Your task to perform on an android device: Show me popular videos on Youtube Image 0: 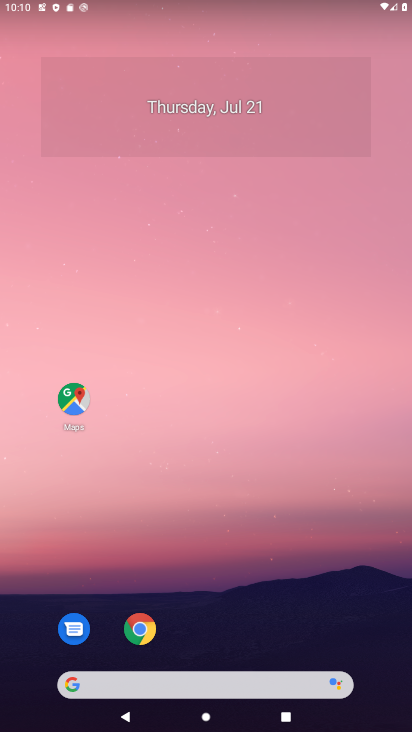
Step 0: press home button
Your task to perform on an android device: Show me popular videos on Youtube Image 1: 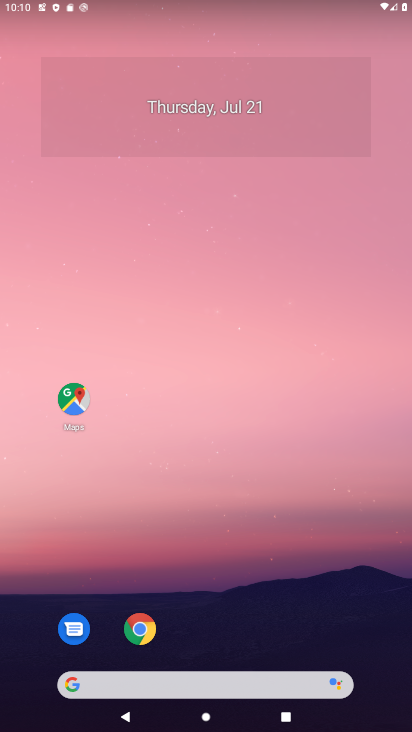
Step 1: drag from (277, 537) to (183, 88)
Your task to perform on an android device: Show me popular videos on Youtube Image 2: 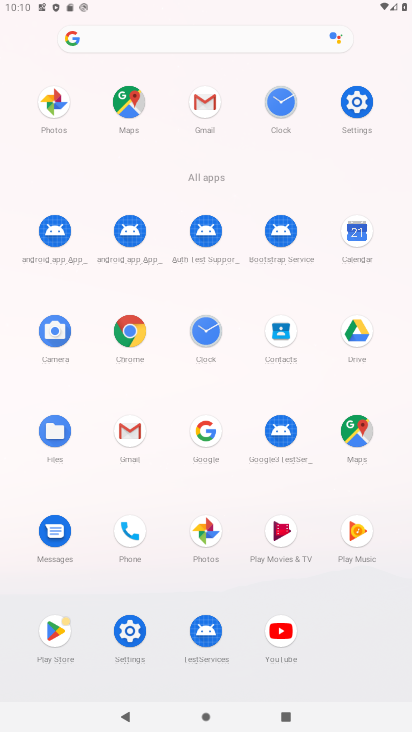
Step 2: click (281, 630)
Your task to perform on an android device: Show me popular videos on Youtube Image 3: 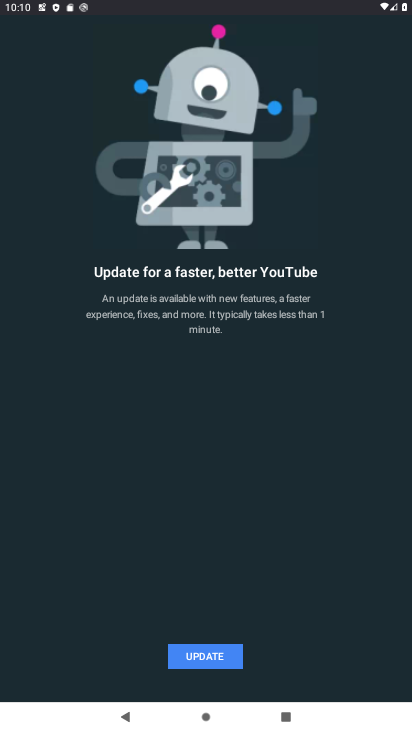
Step 3: click (224, 651)
Your task to perform on an android device: Show me popular videos on Youtube Image 4: 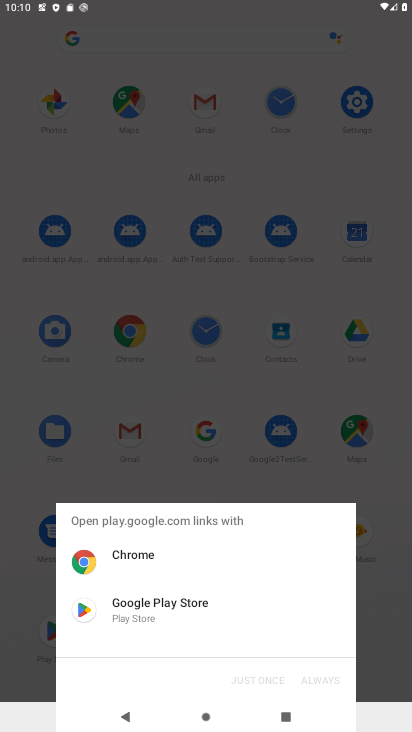
Step 4: click (171, 610)
Your task to perform on an android device: Show me popular videos on Youtube Image 5: 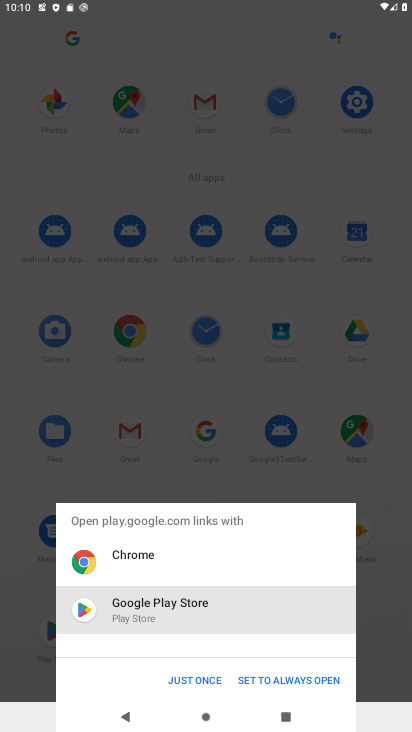
Step 5: click (171, 610)
Your task to perform on an android device: Show me popular videos on Youtube Image 6: 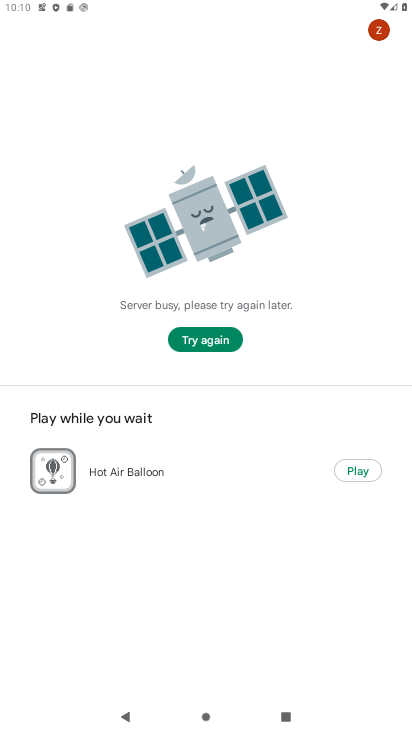
Step 6: click (210, 337)
Your task to perform on an android device: Show me popular videos on Youtube Image 7: 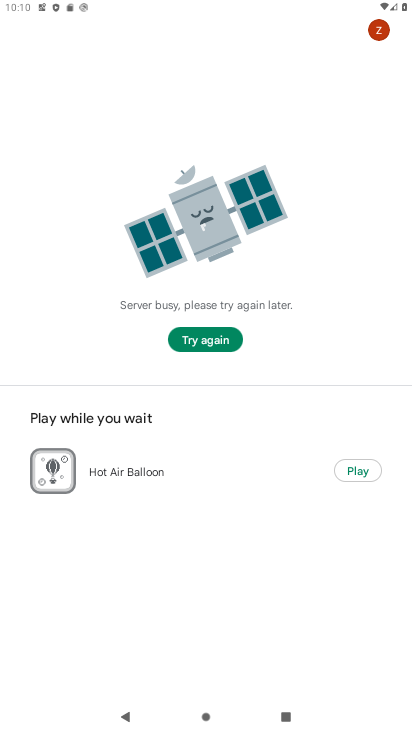
Step 7: task complete